Your task to perform on an android device: Open eBay Image 0: 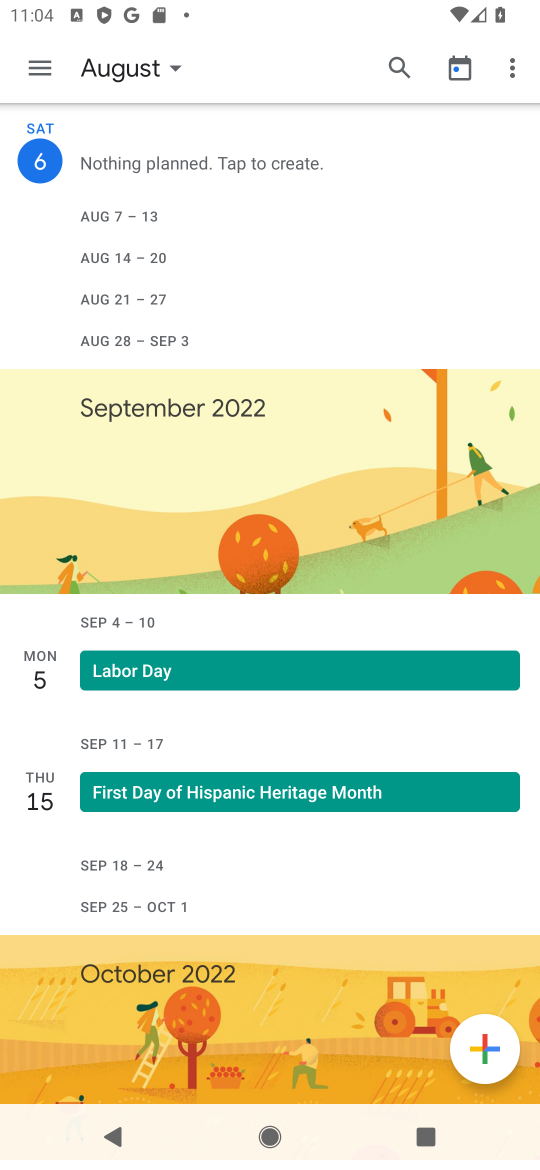
Step 0: press home button
Your task to perform on an android device: Open eBay Image 1: 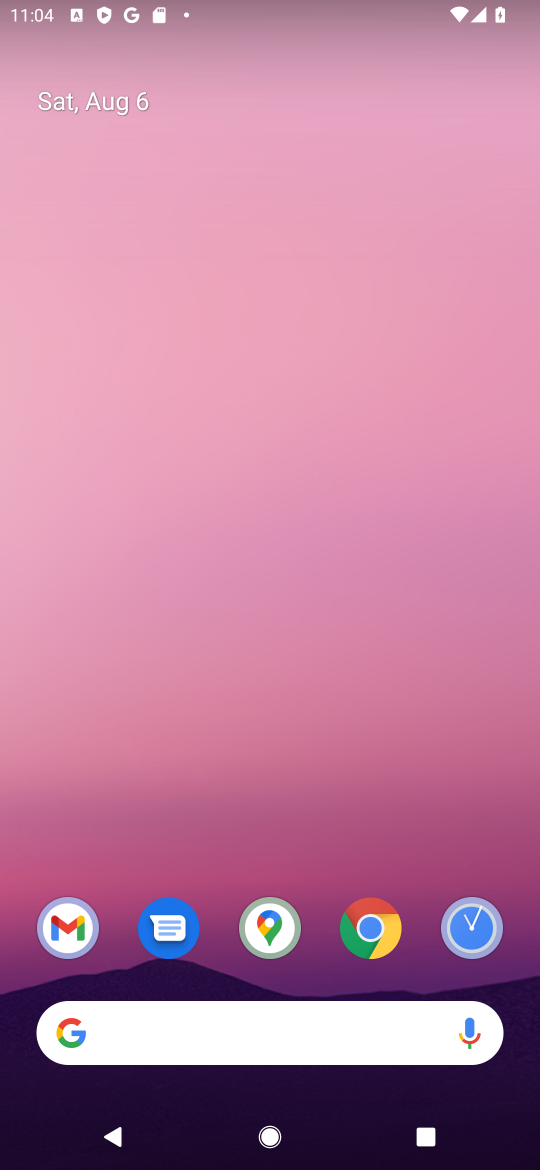
Step 1: click (359, 925)
Your task to perform on an android device: Open eBay Image 2: 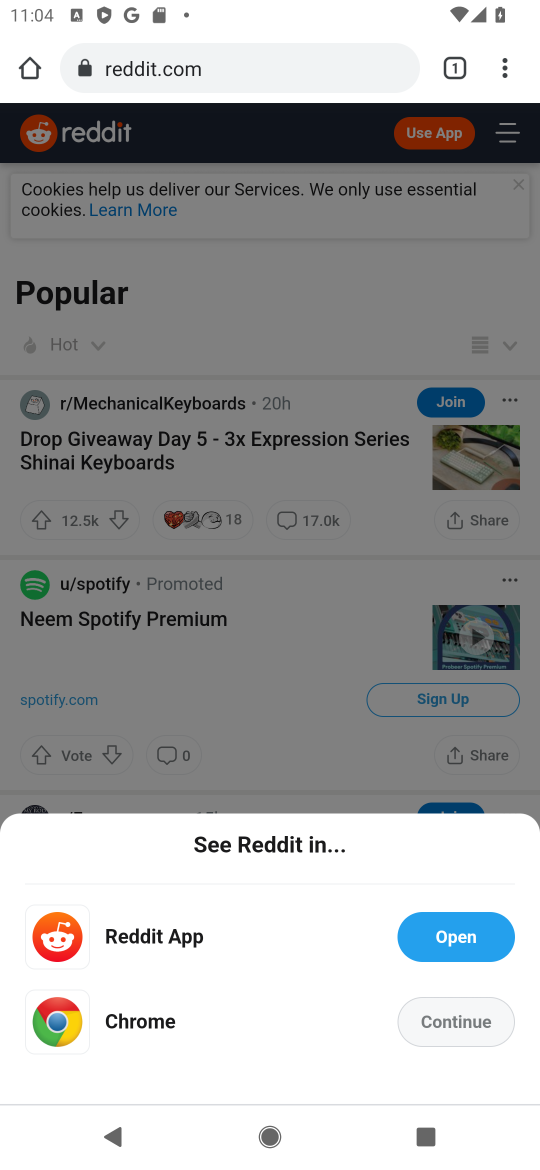
Step 2: click (459, 64)
Your task to perform on an android device: Open eBay Image 3: 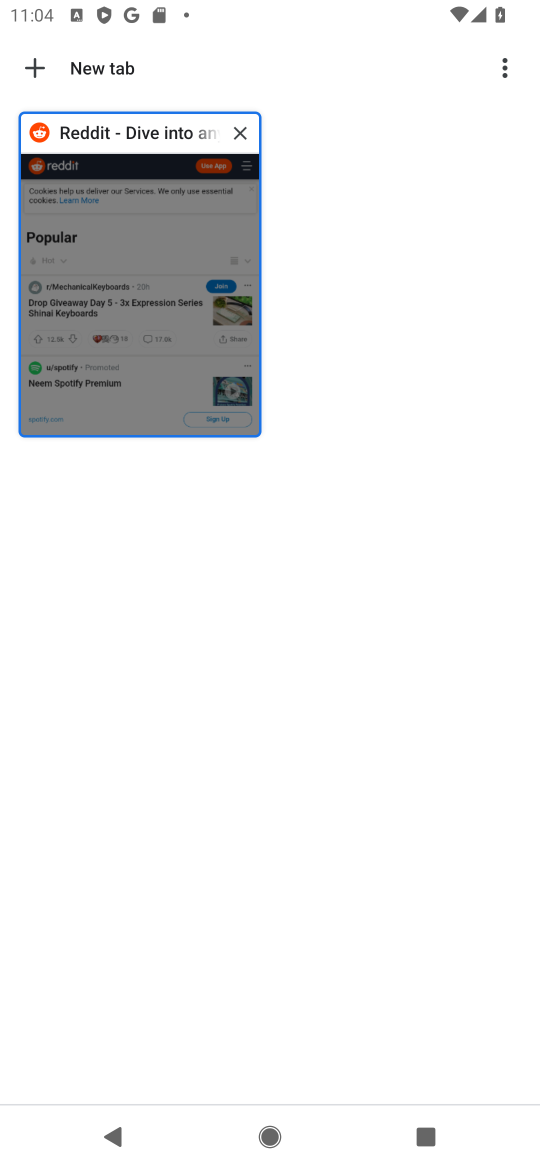
Step 3: click (35, 68)
Your task to perform on an android device: Open eBay Image 4: 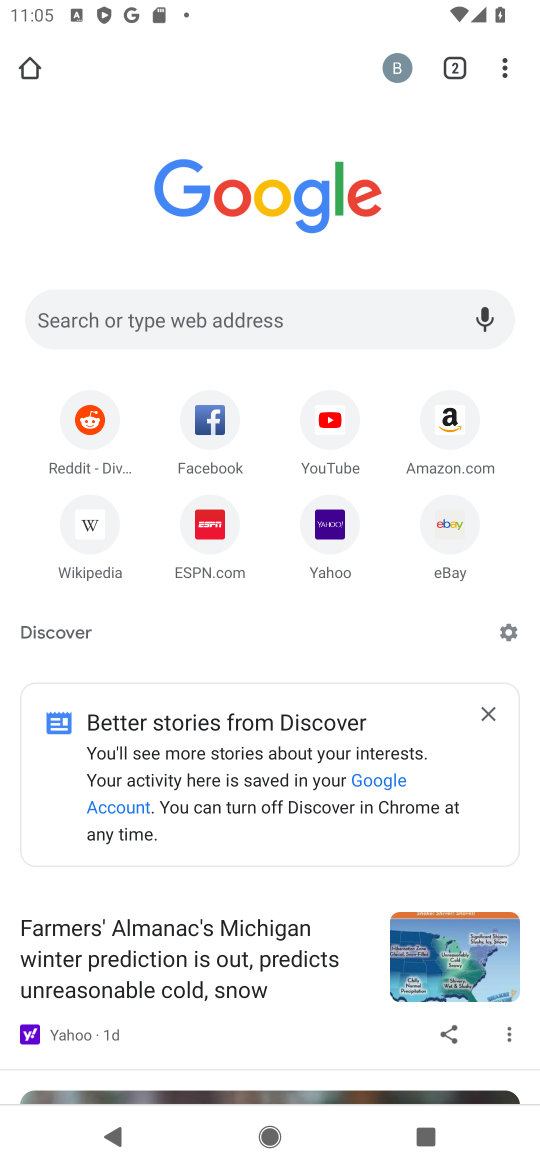
Step 4: click (451, 523)
Your task to perform on an android device: Open eBay Image 5: 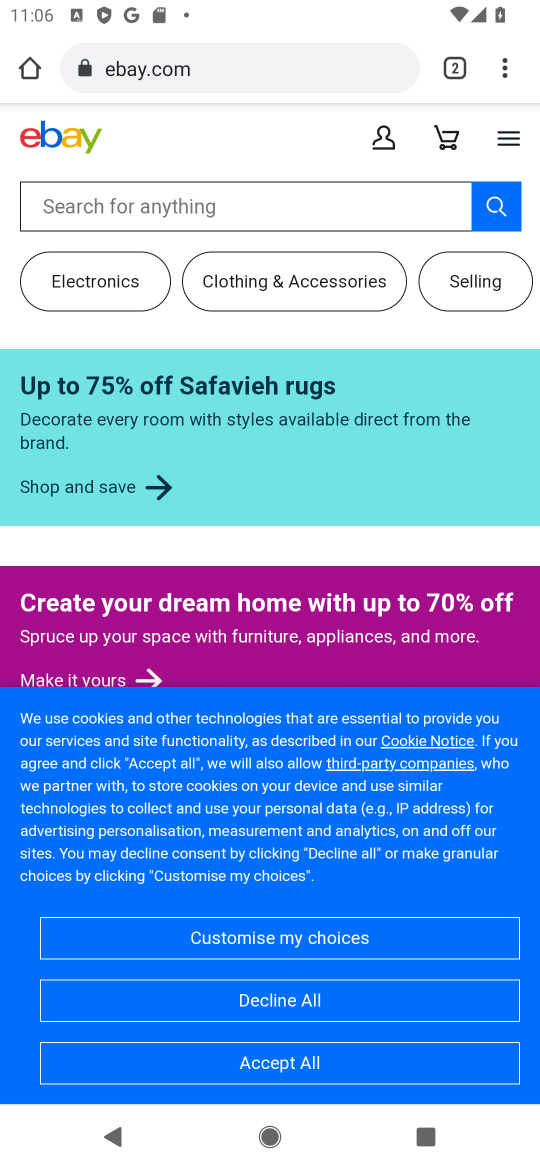
Step 5: task complete